Your task to perform on an android device: turn on notifications settings in the gmail app Image 0: 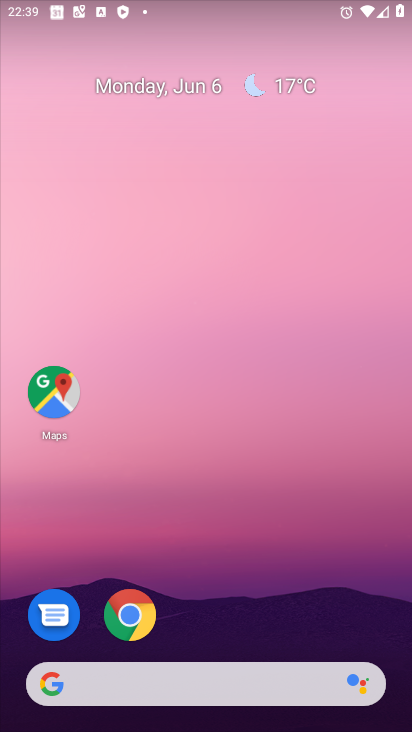
Step 0: drag from (395, 713) to (296, 166)
Your task to perform on an android device: turn on notifications settings in the gmail app Image 1: 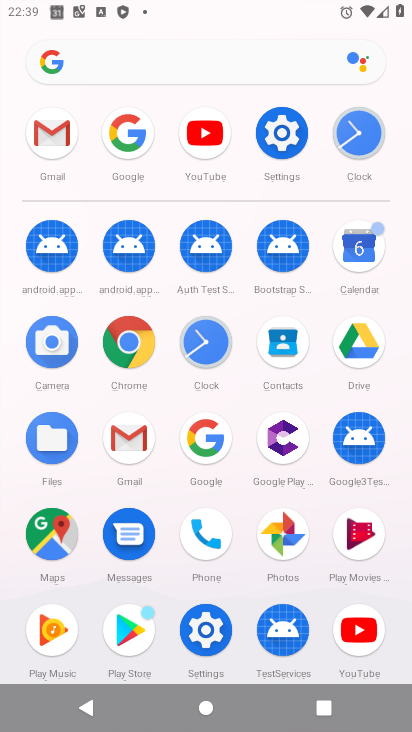
Step 1: click (128, 451)
Your task to perform on an android device: turn on notifications settings in the gmail app Image 2: 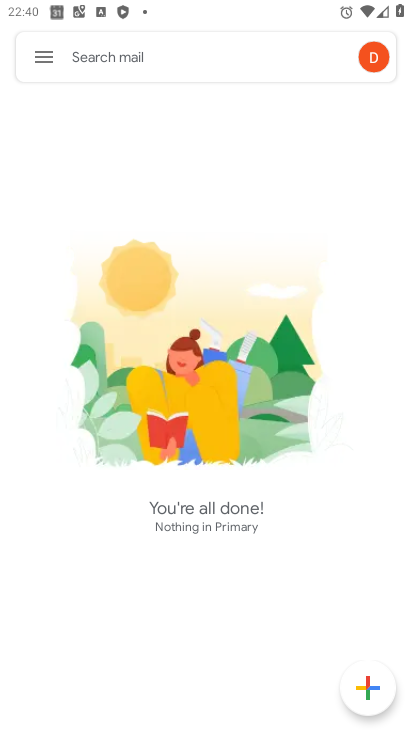
Step 2: click (49, 59)
Your task to perform on an android device: turn on notifications settings in the gmail app Image 3: 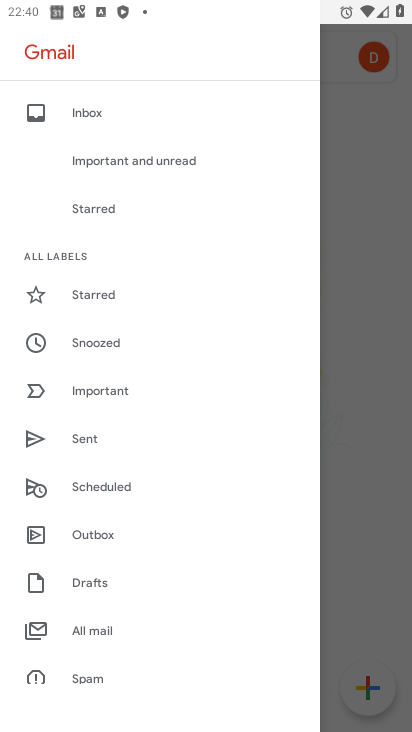
Step 3: drag from (154, 623) to (110, 286)
Your task to perform on an android device: turn on notifications settings in the gmail app Image 4: 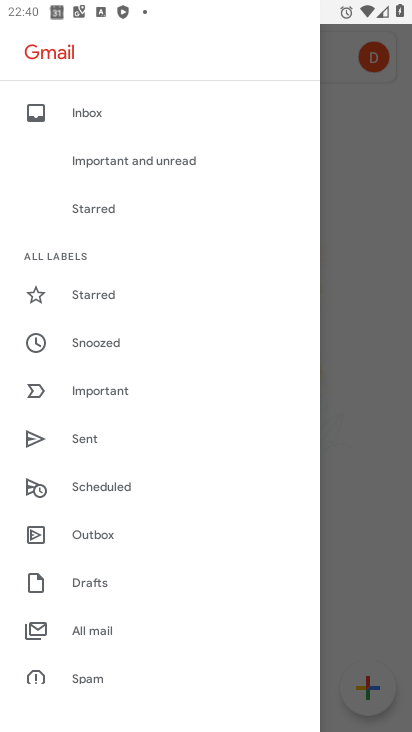
Step 4: drag from (145, 585) to (163, 278)
Your task to perform on an android device: turn on notifications settings in the gmail app Image 5: 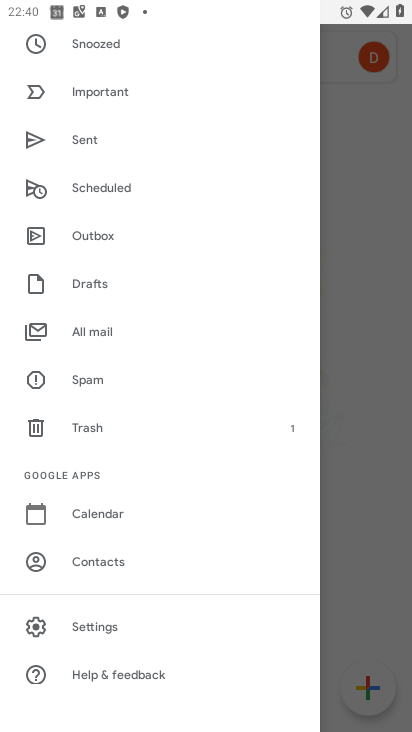
Step 5: click (90, 627)
Your task to perform on an android device: turn on notifications settings in the gmail app Image 6: 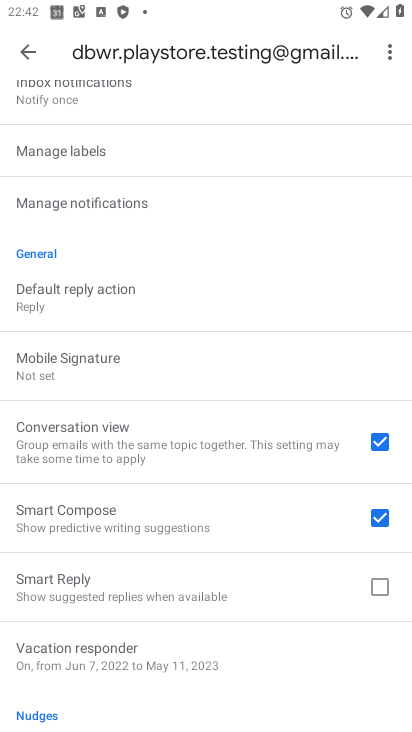
Step 6: click (74, 154)
Your task to perform on an android device: turn on notifications settings in the gmail app Image 7: 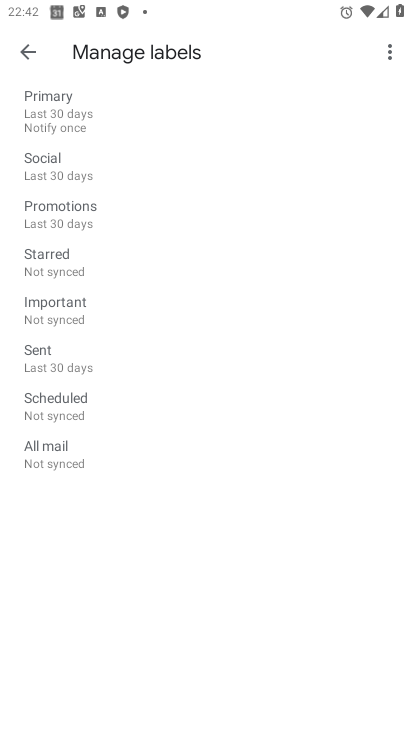
Step 7: click (25, 48)
Your task to perform on an android device: turn on notifications settings in the gmail app Image 8: 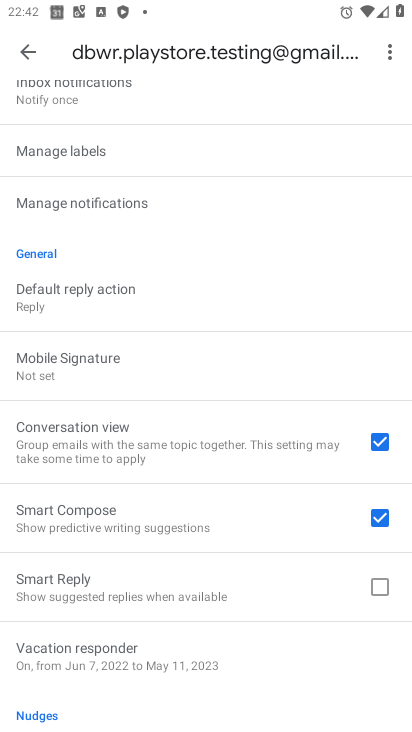
Step 8: click (29, 49)
Your task to perform on an android device: turn on notifications settings in the gmail app Image 9: 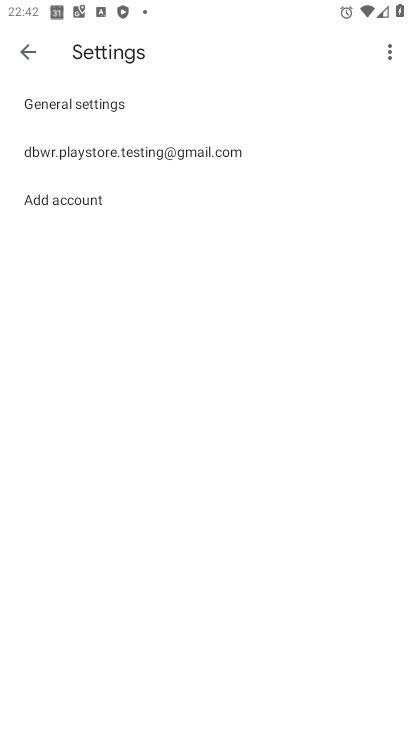
Step 9: click (78, 106)
Your task to perform on an android device: turn on notifications settings in the gmail app Image 10: 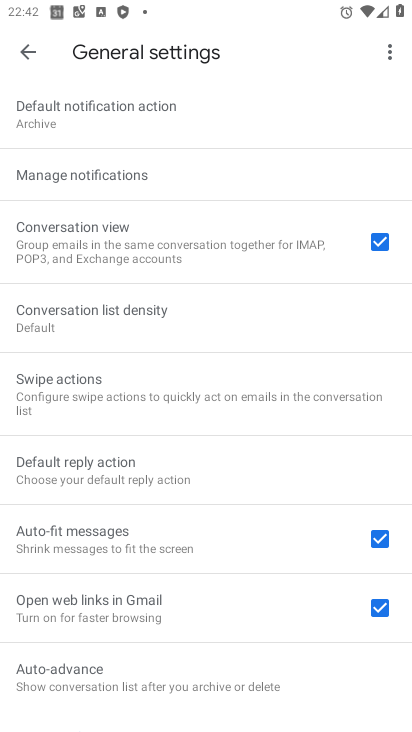
Step 10: click (178, 185)
Your task to perform on an android device: turn on notifications settings in the gmail app Image 11: 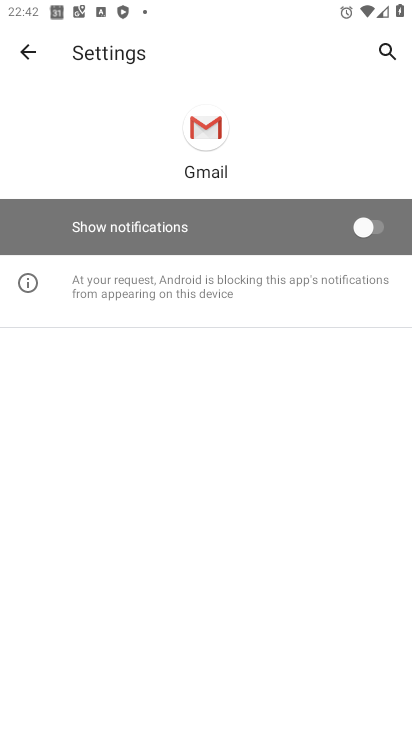
Step 11: click (381, 230)
Your task to perform on an android device: turn on notifications settings in the gmail app Image 12: 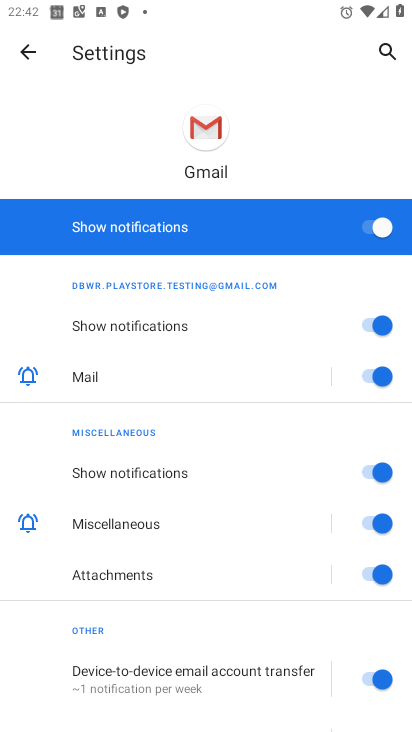
Step 12: task complete